Your task to perform on an android device: toggle wifi Image 0: 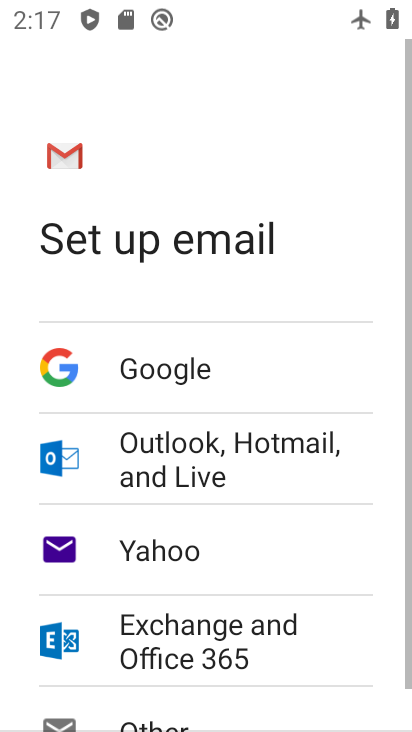
Step 0: press back button
Your task to perform on an android device: toggle wifi Image 1: 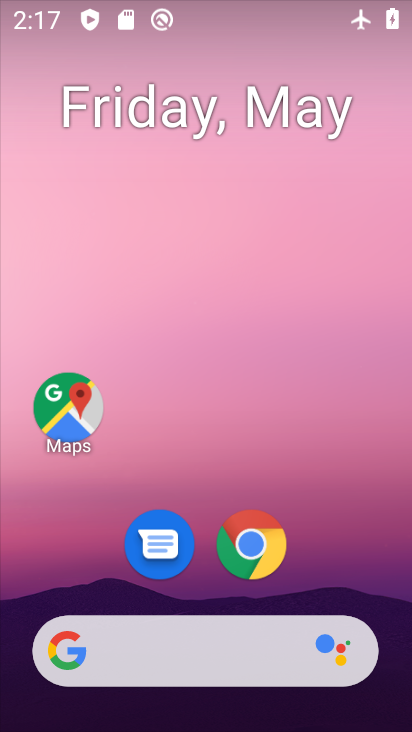
Step 1: drag from (85, 9) to (177, 571)
Your task to perform on an android device: toggle wifi Image 2: 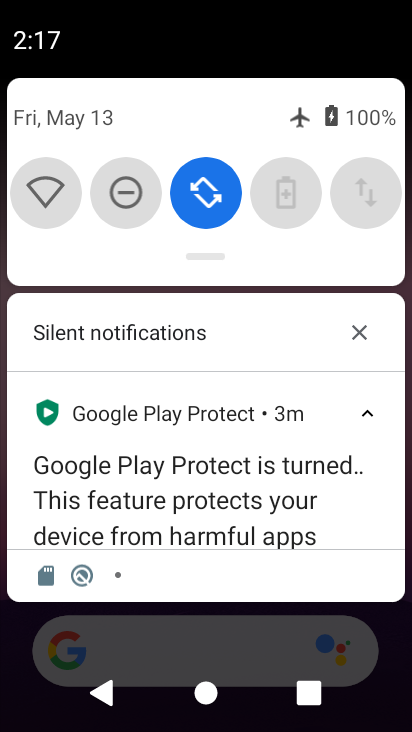
Step 2: click (55, 185)
Your task to perform on an android device: toggle wifi Image 3: 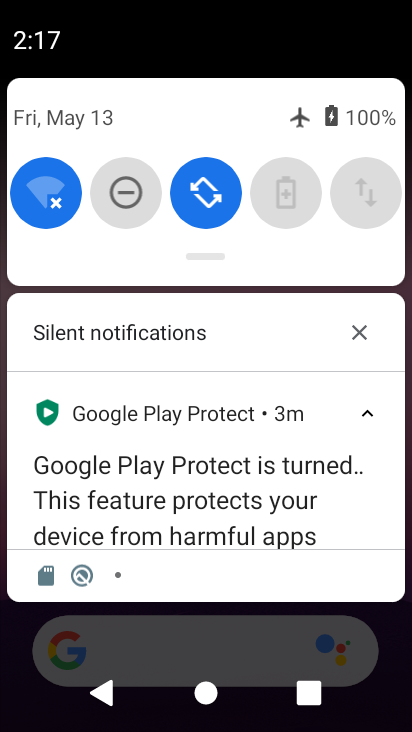
Step 3: task complete